Your task to perform on an android device: Check the weather Image 0: 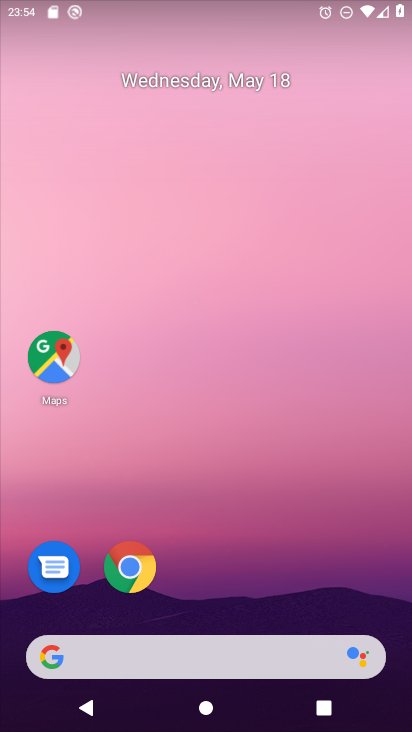
Step 0: drag from (280, 671) to (354, 125)
Your task to perform on an android device: Check the weather Image 1: 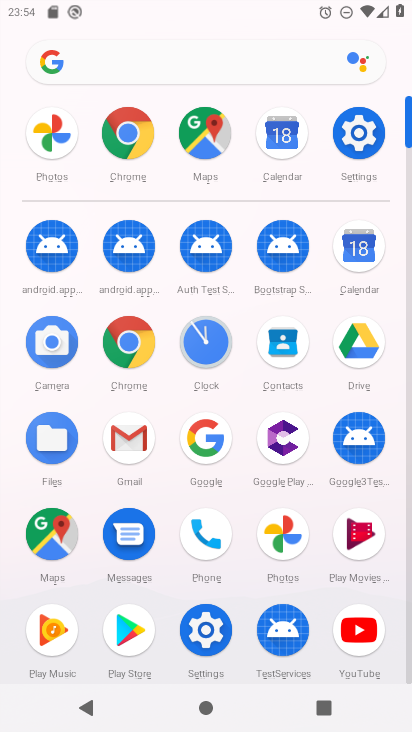
Step 1: click (127, 66)
Your task to perform on an android device: Check the weather Image 2: 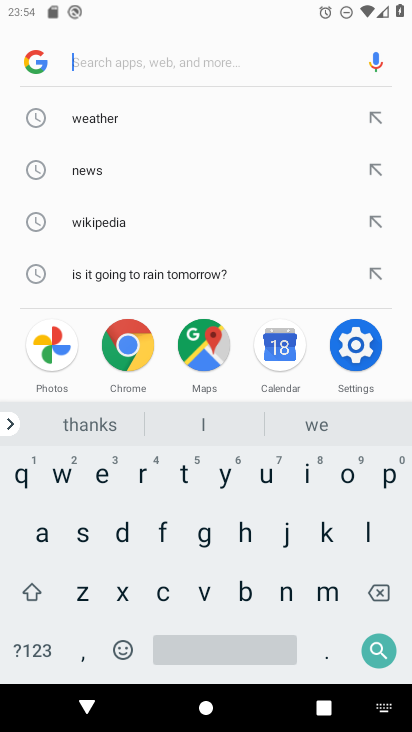
Step 2: click (103, 127)
Your task to perform on an android device: Check the weather Image 3: 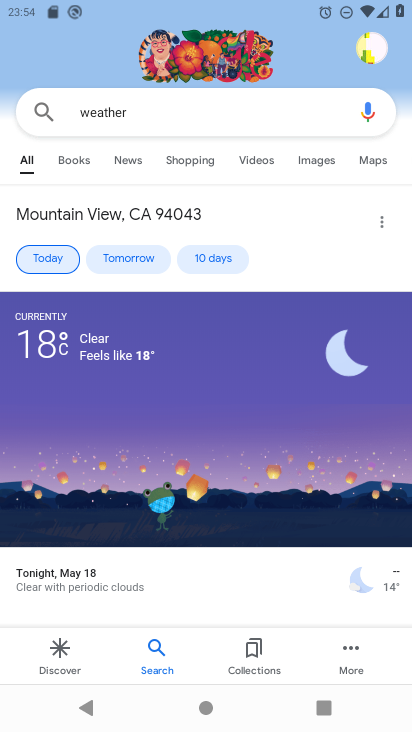
Step 3: task complete